Your task to perform on an android device: show emergency info Image 0: 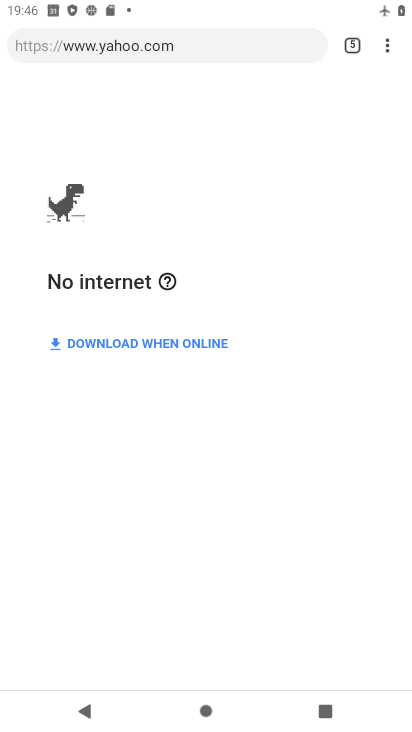
Step 0: press home button
Your task to perform on an android device: show emergency info Image 1: 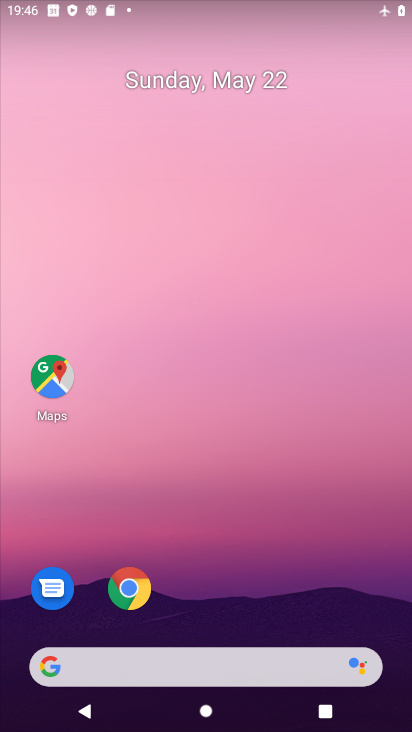
Step 1: drag from (253, 569) to (252, 133)
Your task to perform on an android device: show emergency info Image 2: 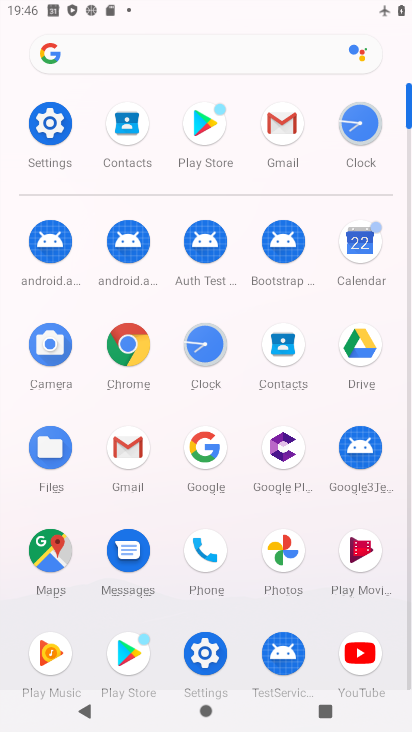
Step 2: click (46, 124)
Your task to perform on an android device: show emergency info Image 3: 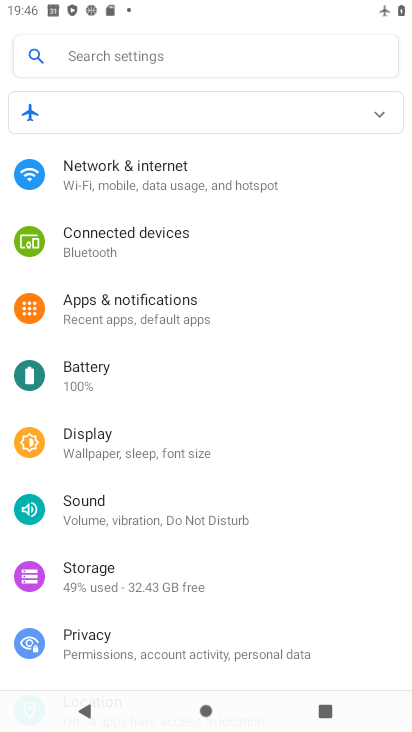
Step 3: drag from (210, 597) to (244, 179)
Your task to perform on an android device: show emergency info Image 4: 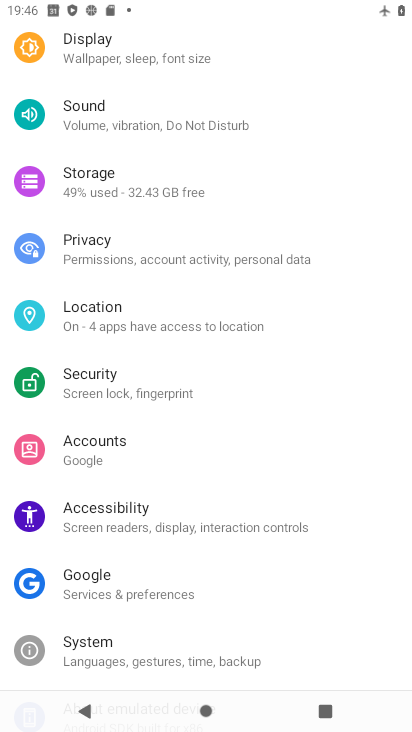
Step 4: drag from (212, 621) to (222, 245)
Your task to perform on an android device: show emergency info Image 5: 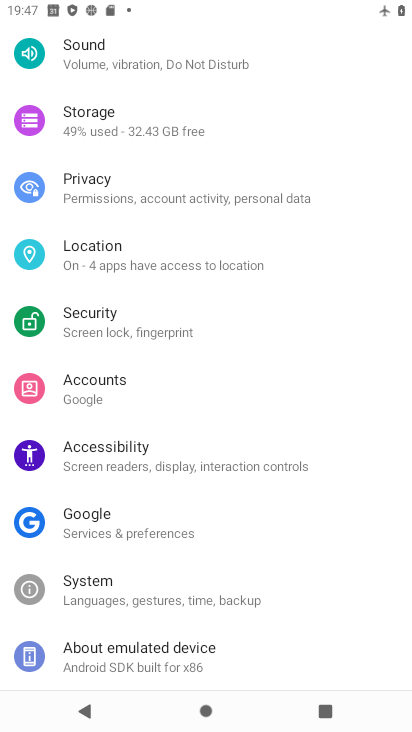
Step 5: click (120, 649)
Your task to perform on an android device: show emergency info Image 6: 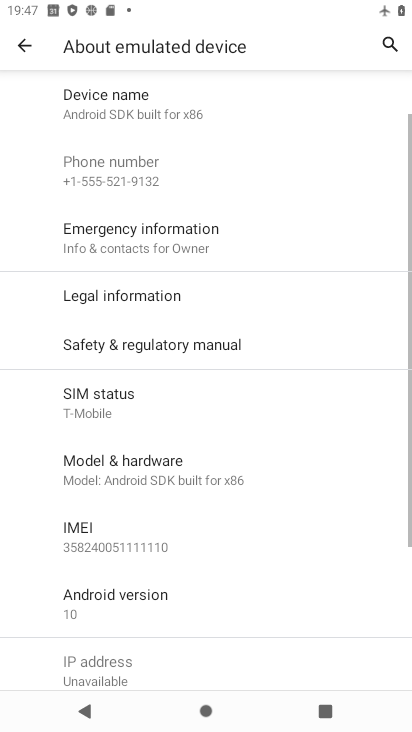
Step 6: click (166, 211)
Your task to perform on an android device: show emergency info Image 7: 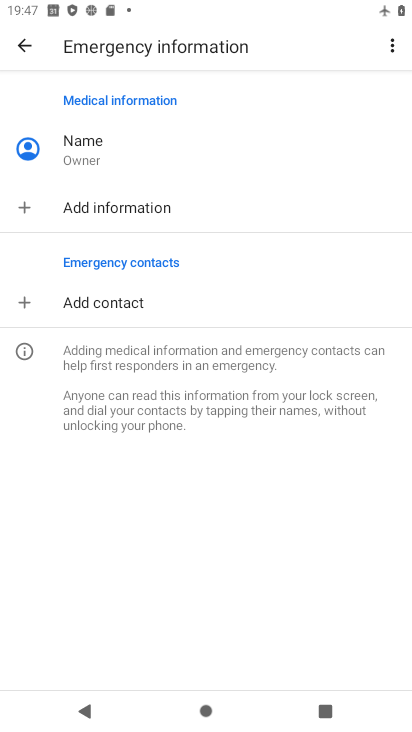
Step 7: task complete